Your task to perform on an android device: Open internet settings Image 0: 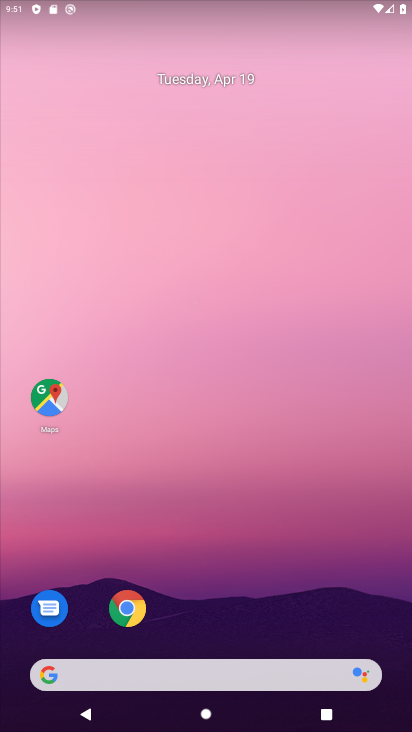
Step 0: drag from (370, 255) to (358, 30)
Your task to perform on an android device: Open internet settings Image 1: 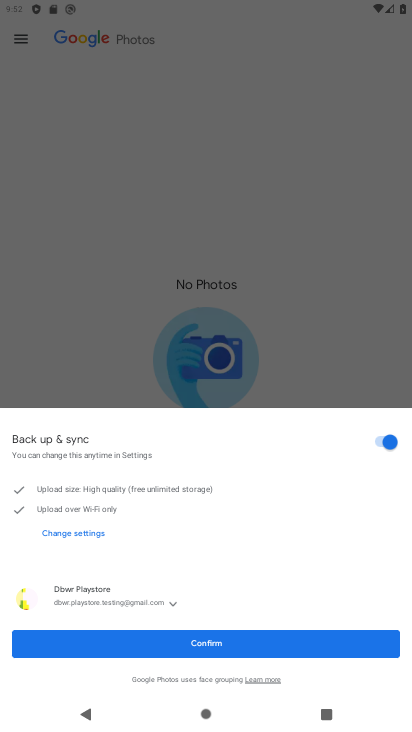
Step 1: press home button
Your task to perform on an android device: Open internet settings Image 2: 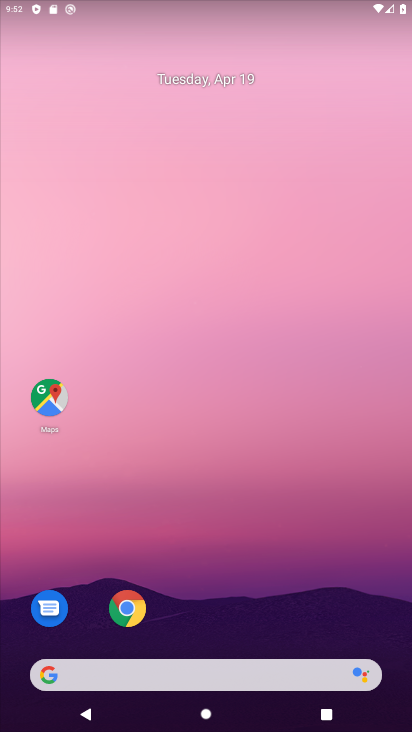
Step 2: drag from (370, 262) to (360, 61)
Your task to perform on an android device: Open internet settings Image 3: 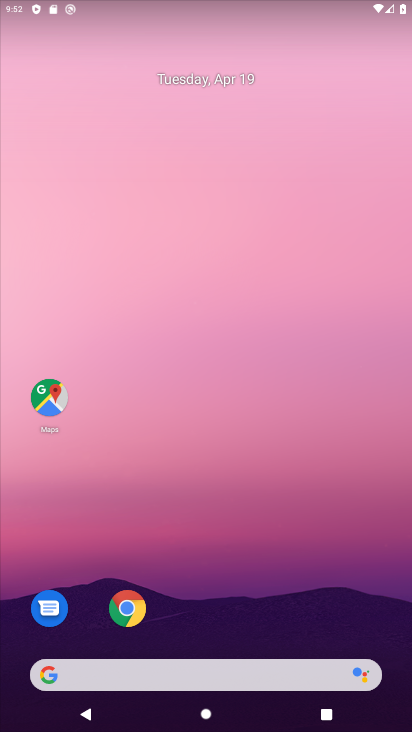
Step 3: drag from (318, 68) to (314, 26)
Your task to perform on an android device: Open internet settings Image 4: 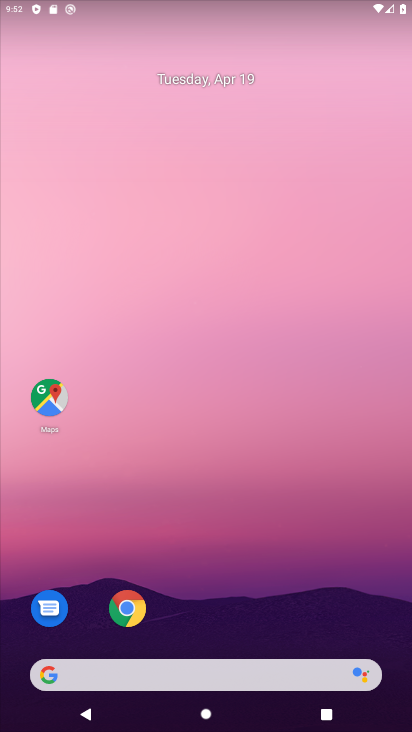
Step 4: click (317, 104)
Your task to perform on an android device: Open internet settings Image 5: 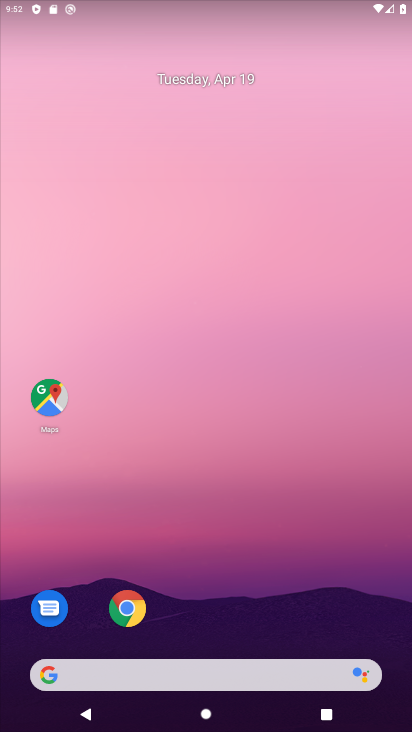
Step 5: drag from (367, 528) to (342, 40)
Your task to perform on an android device: Open internet settings Image 6: 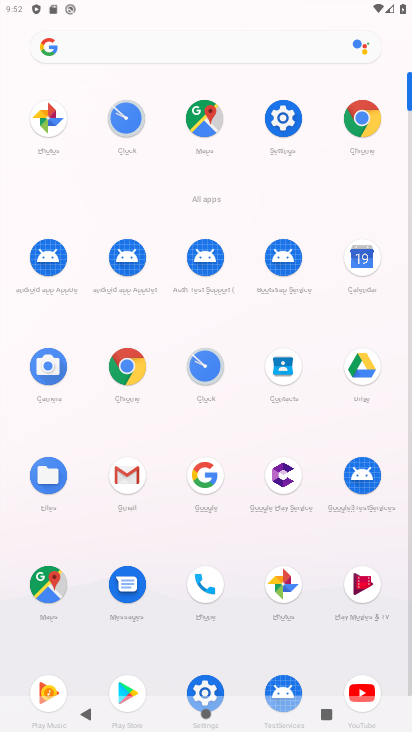
Step 6: click (278, 121)
Your task to perform on an android device: Open internet settings Image 7: 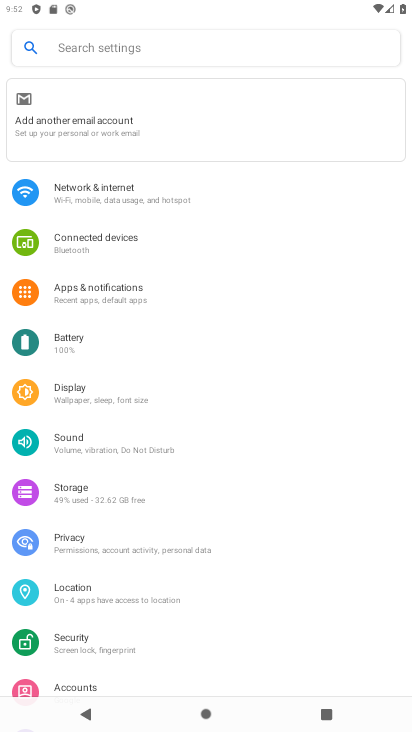
Step 7: click (88, 191)
Your task to perform on an android device: Open internet settings Image 8: 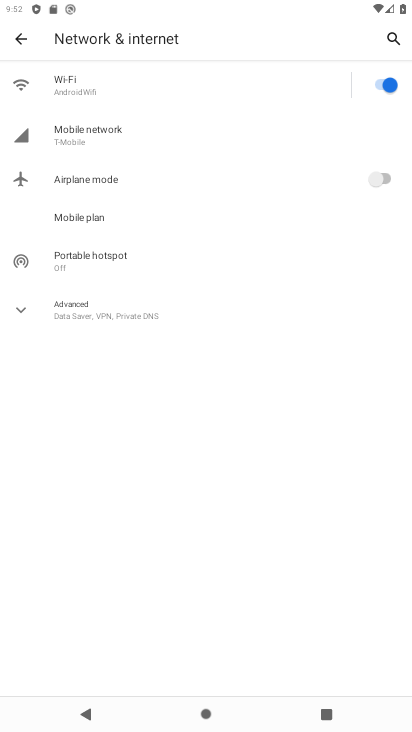
Step 8: click (113, 135)
Your task to perform on an android device: Open internet settings Image 9: 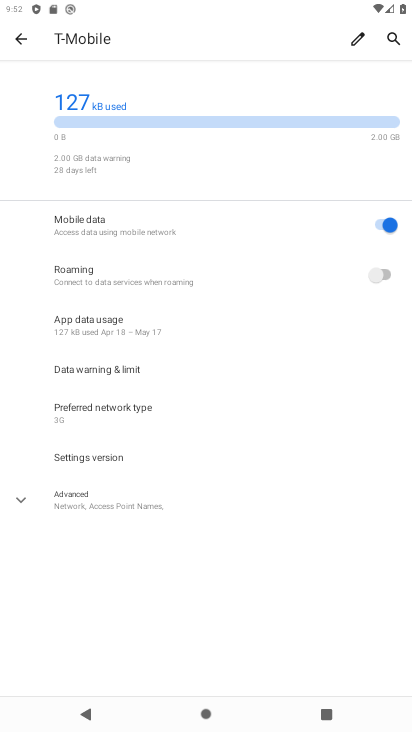
Step 9: task complete